Your task to perform on an android device: turn on the 24-hour format for clock Image 0: 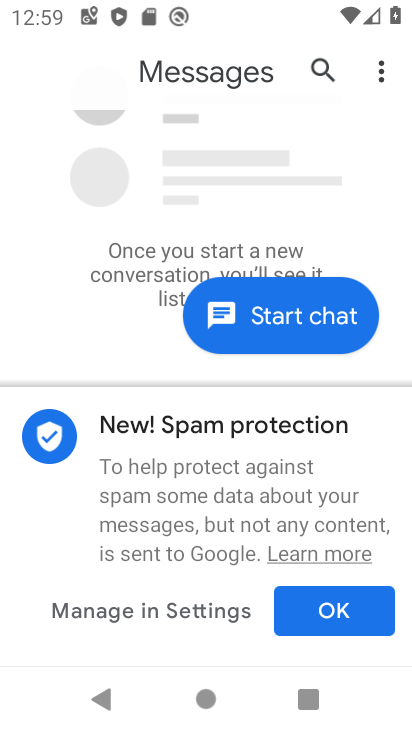
Step 0: press home button
Your task to perform on an android device: turn on the 24-hour format for clock Image 1: 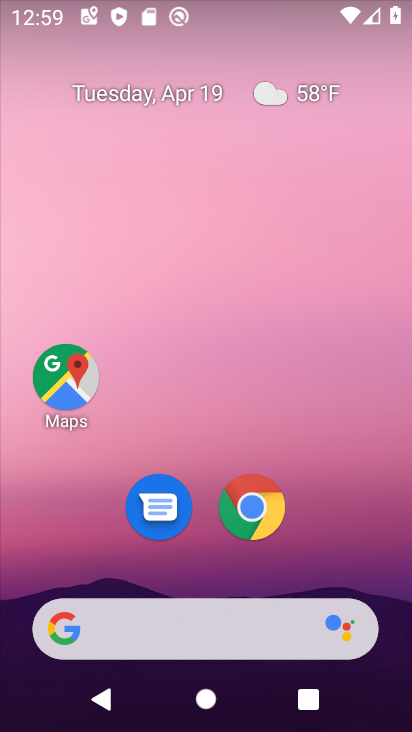
Step 1: drag from (197, 329) to (222, 112)
Your task to perform on an android device: turn on the 24-hour format for clock Image 2: 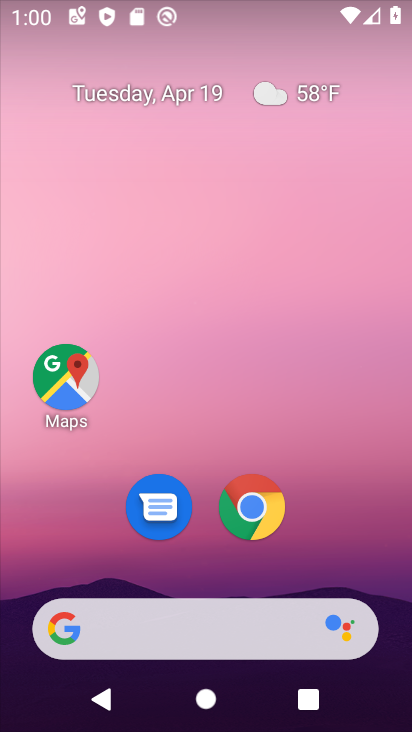
Step 2: drag from (232, 597) to (324, 55)
Your task to perform on an android device: turn on the 24-hour format for clock Image 3: 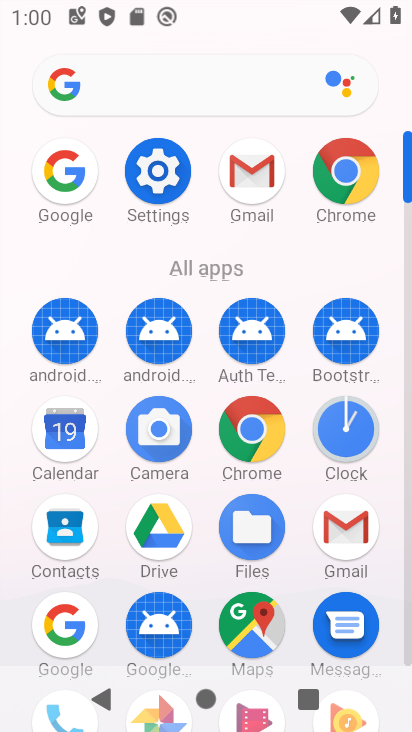
Step 3: click (357, 438)
Your task to perform on an android device: turn on the 24-hour format for clock Image 4: 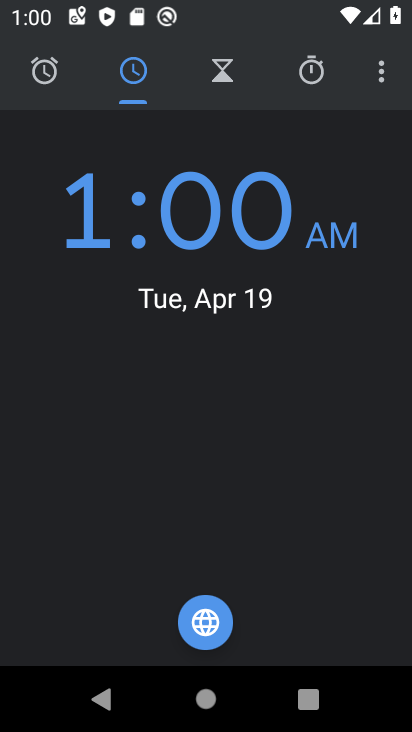
Step 4: click (381, 80)
Your task to perform on an android device: turn on the 24-hour format for clock Image 5: 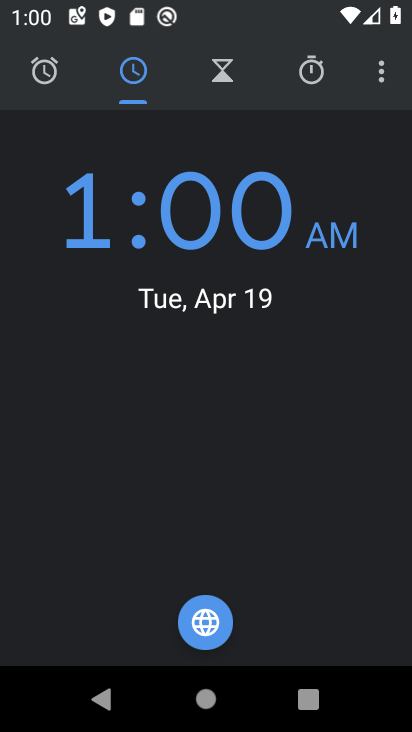
Step 5: click (384, 71)
Your task to perform on an android device: turn on the 24-hour format for clock Image 6: 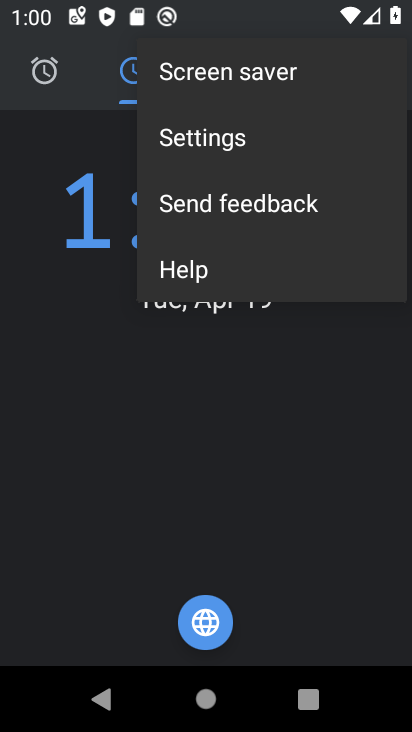
Step 6: click (206, 139)
Your task to perform on an android device: turn on the 24-hour format for clock Image 7: 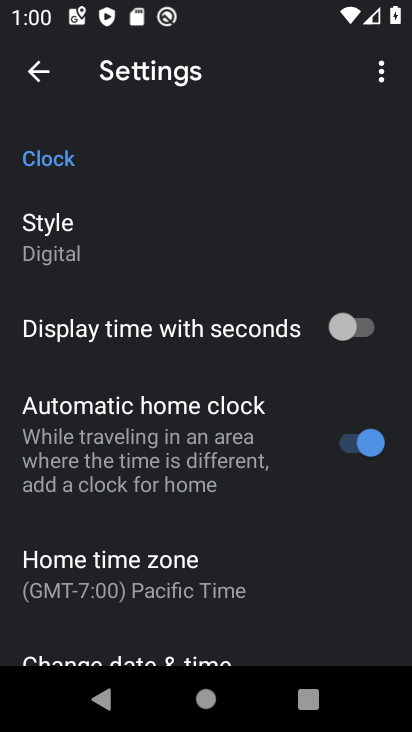
Step 7: drag from (77, 418) to (118, 244)
Your task to perform on an android device: turn on the 24-hour format for clock Image 8: 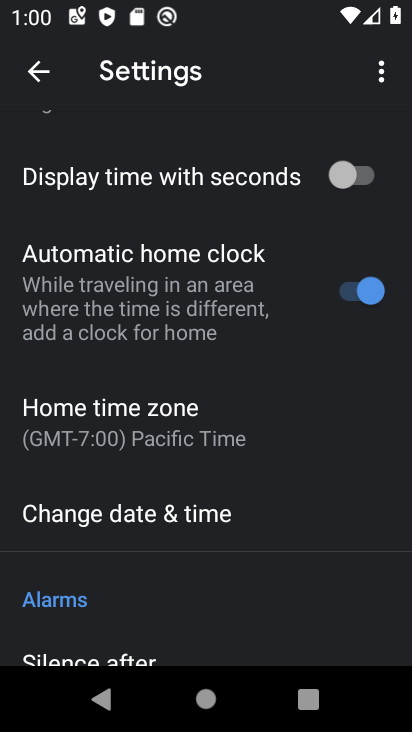
Step 8: drag from (120, 536) to (214, 203)
Your task to perform on an android device: turn on the 24-hour format for clock Image 9: 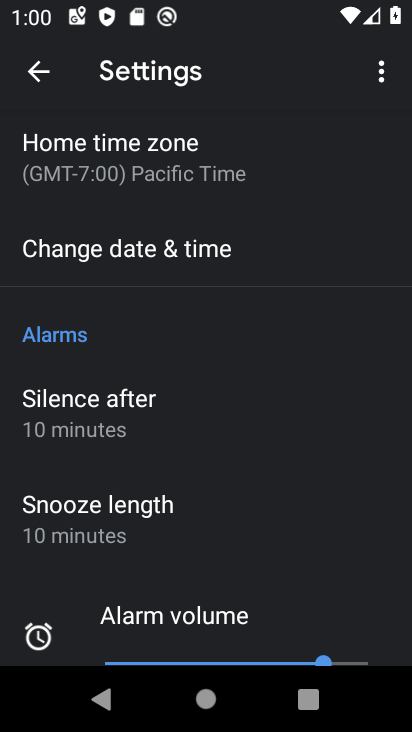
Step 9: drag from (185, 520) to (234, 230)
Your task to perform on an android device: turn on the 24-hour format for clock Image 10: 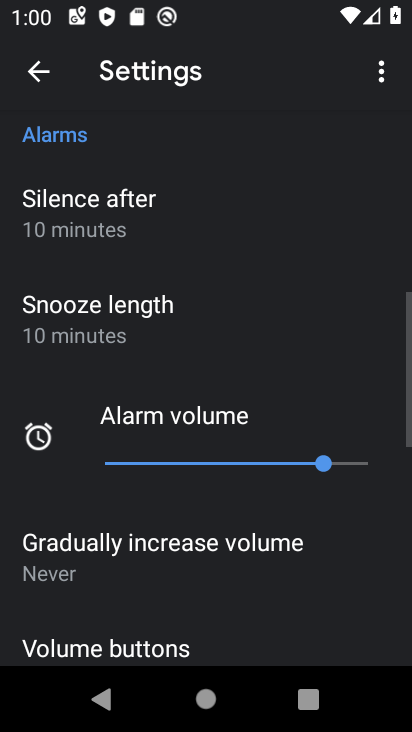
Step 10: drag from (182, 522) to (222, 302)
Your task to perform on an android device: turn on the 24-hour format for clock Image 11: 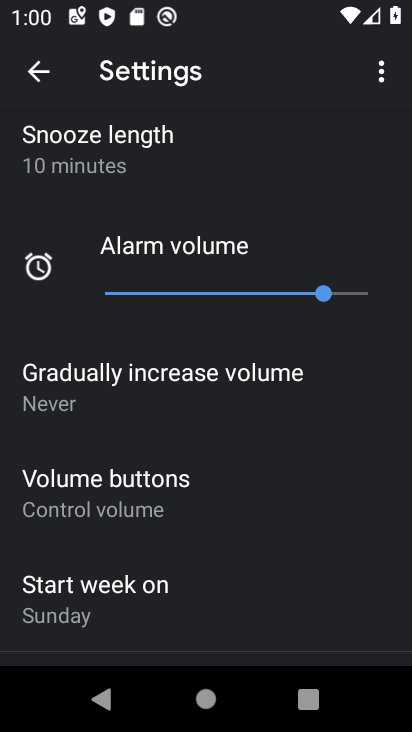
Step 11: drag from (151, 544) to (241, 272)
Your task to perform on an android device: turn on the 24-hour format for clock Image 12: 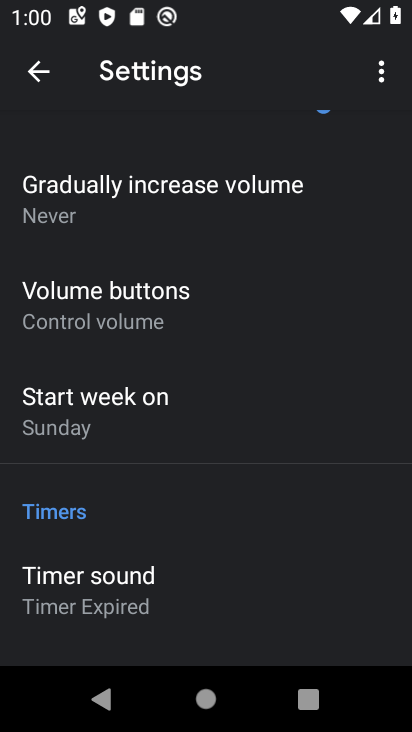
Step 12: drag from (221, 546) to (343, 262)
Your task to perform on an android device: turn on the 24-hour format for clock Image 13: 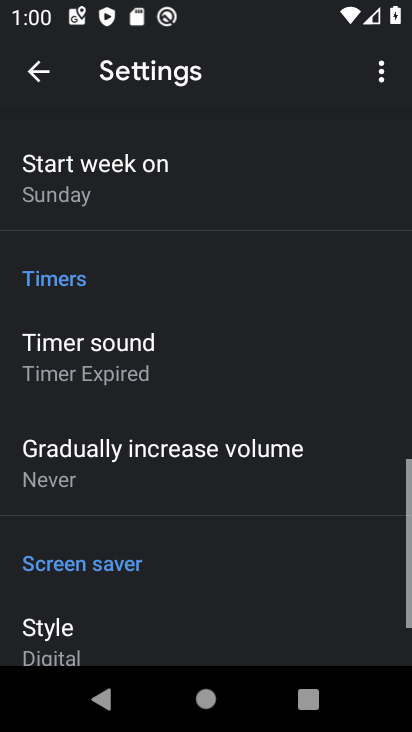
Step 13: drag from (347, 295) to (341, 561)
Your task to perform on an android device: turn on the 24-hour format for clock Image 14: 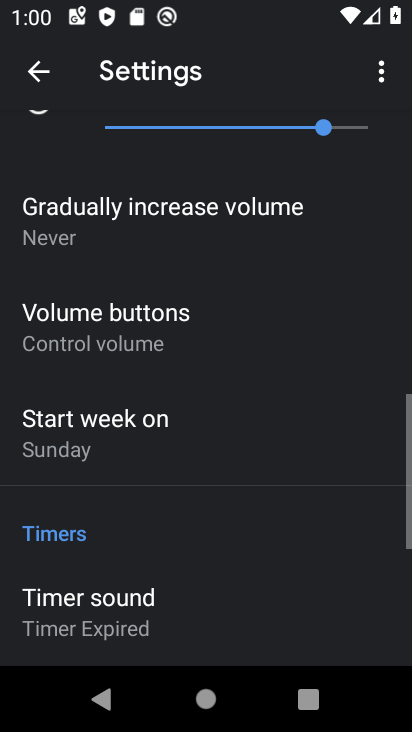
Step 14: drag from (304, 324) to (306, 531)
Your task to perform on an android device: turn on the 24-hour format for clock Image 15: 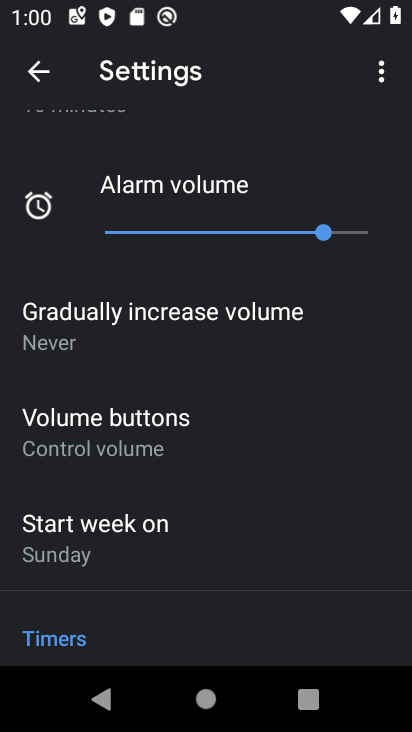
Step 15: drag from (262, 173) to (199, 490)
Your task to perform on an android device: turn on the 24-hour format for clock Image 16: 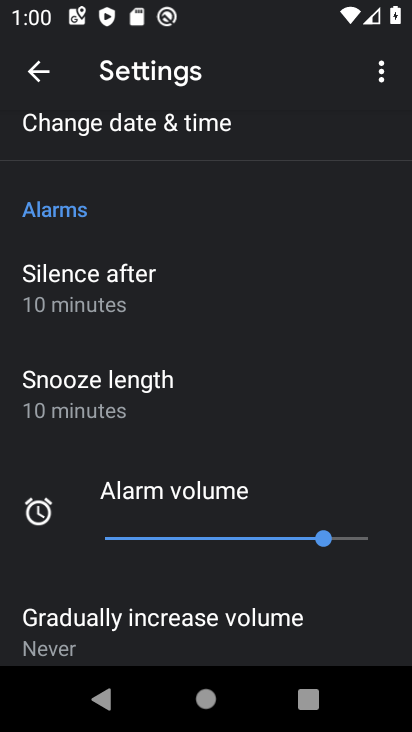
Step 16: drag from (193, 158) to (190, 507)
Your task to perform on an android device: turn on the 24-hour format for clock Image 17: 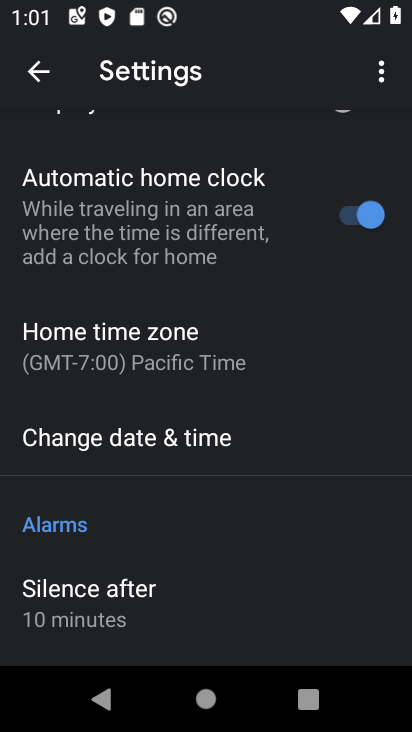
Step 17: click (169, 426)
Your task to perform on an android device: turn on the 24-hour format for clock Image 18: 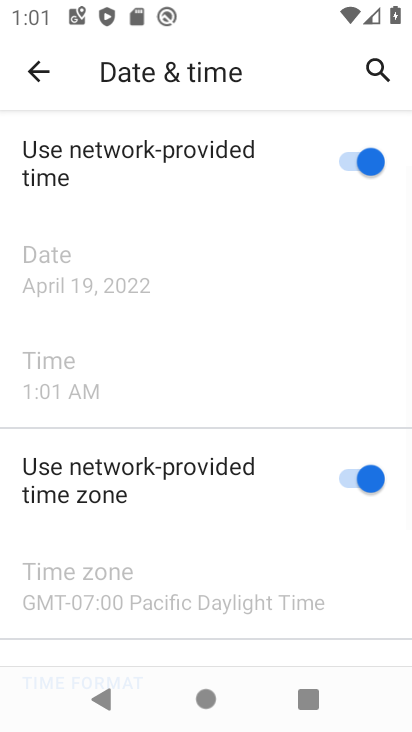
Step 18: drag from (185, 461) to (261, 164)
Your task to perform on an android device: turn on the 24-hour format for clock Image 19: 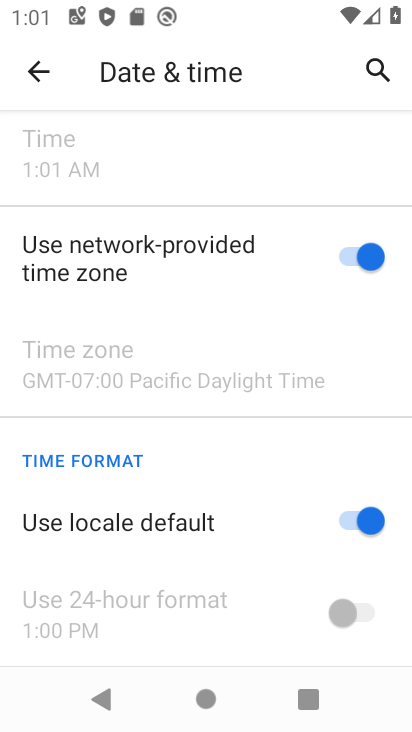
Step 19: drag from (170, 566) to (279, 251)
Your task to perform on an android device: turn on the 24-hour format for clock Image 20: 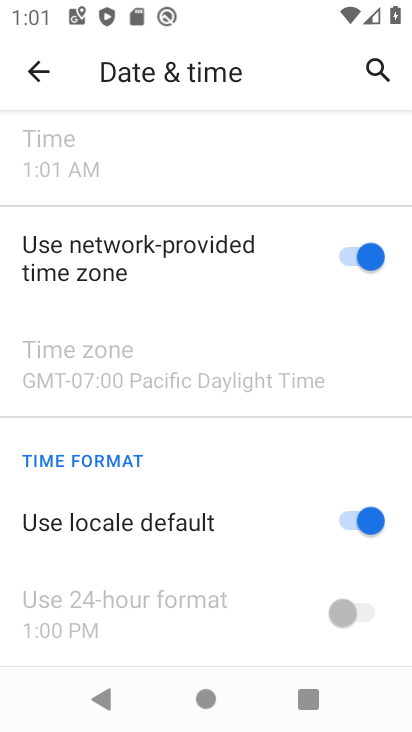
Step 20: click (365, 525)
Your task to perform on an android device: turn on the 24-hour format for clock Image 21: 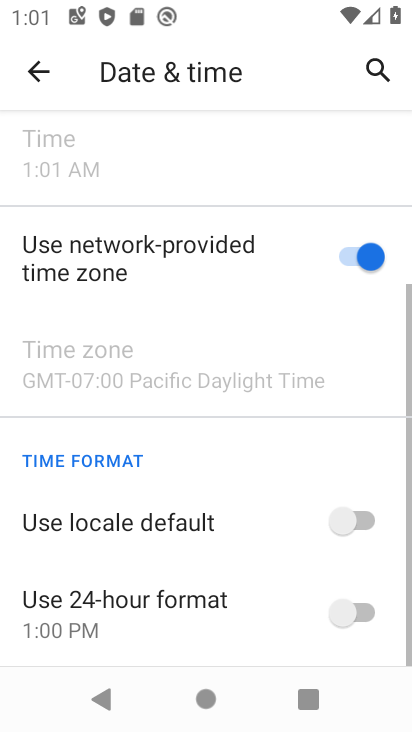
Step 21: click (350, 616)
Your task to perform on an android device: turn on the 24-hour format for clock Image 22: 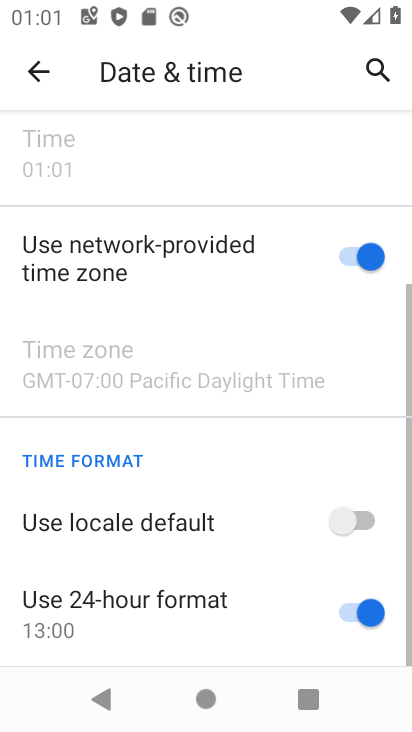
Step 22: task complete